Your task to perform on an android device: turn off notifications in google photos Image 0: 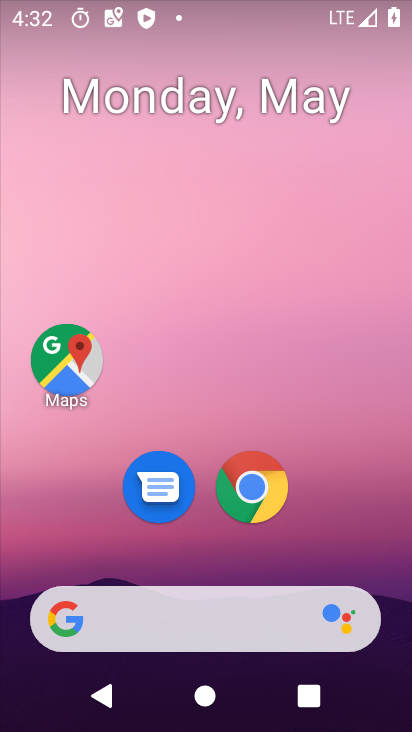
Step 0: drag from (377, 571) to (380, 17)
Your task to perform on an android device: turn off notifications in google photos Image 1: 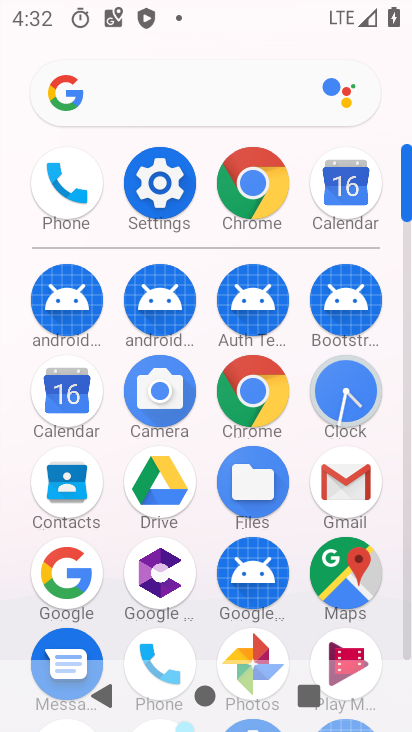
Step 1: click (250, 642)
Your task to perform on an android device: turn off notifications in google photos Image 2: 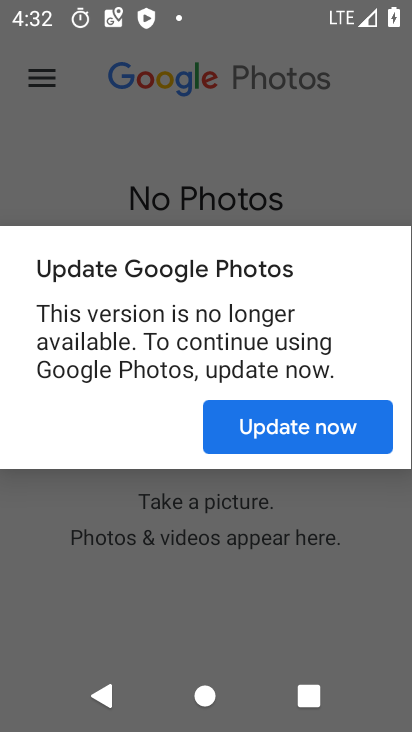
Step 2: click (299, 437)
Your task to perform on an android device: turn off notifications in google photos Image 3: 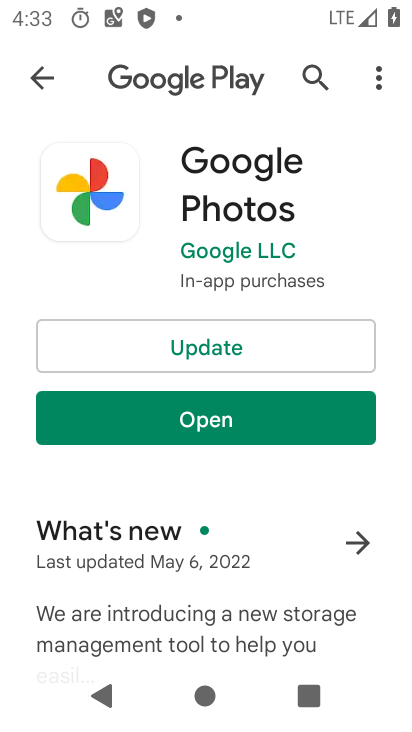
Step 3: click (198, 425)
Your task to perform on an android device: turn off notifications in google photos Image 4: 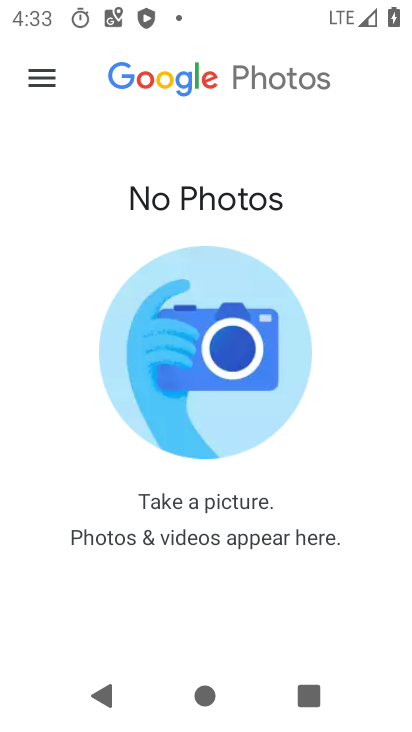
Step 4: click (40, 88)
Your task to perform on an android device: turn off notifications in google photos Image 5: 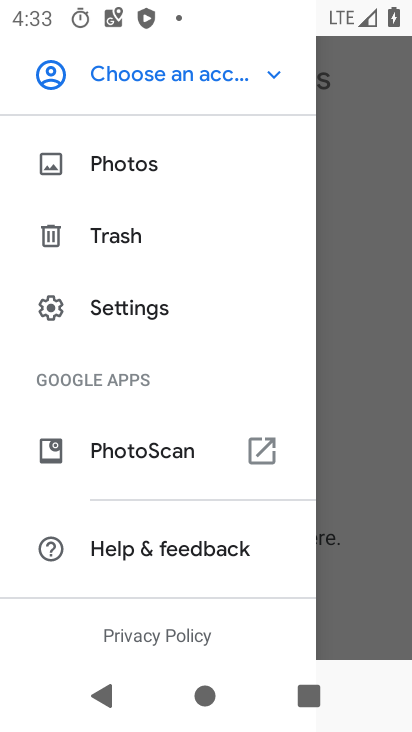
Step 5: click (119, 313)
Your task to perform on an android device: turn off notifications in google photos Image 6: 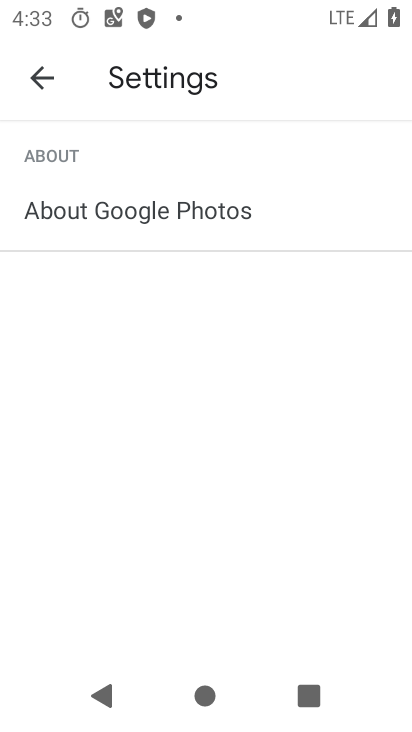
Step 6: click (37, 84)
Your task to perform on an android device: turn off notifications in google photos Image 7: 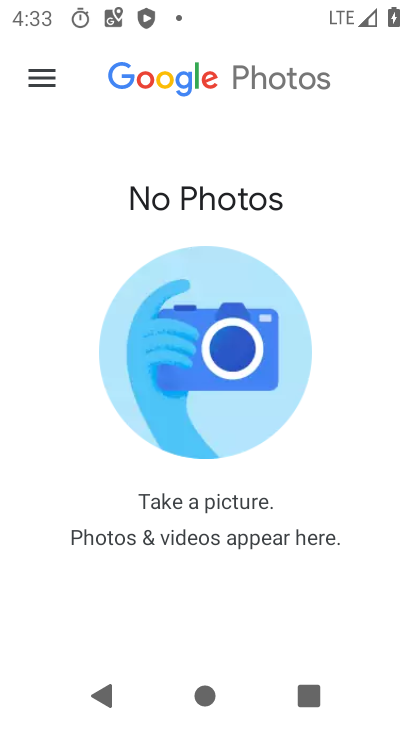
Step 7: click (37, 84)
Your task to perform on an android device: turn off notifications in google photos Image 8: 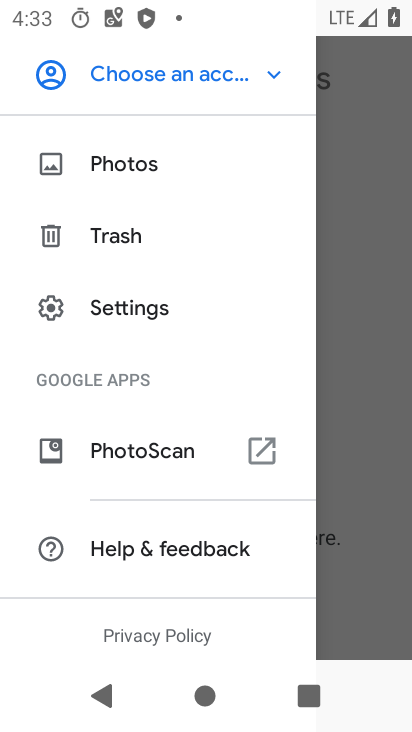
Step 8: click (99, 314)
Your task to perform on an android device: turn off notifications in google photos Image 9: 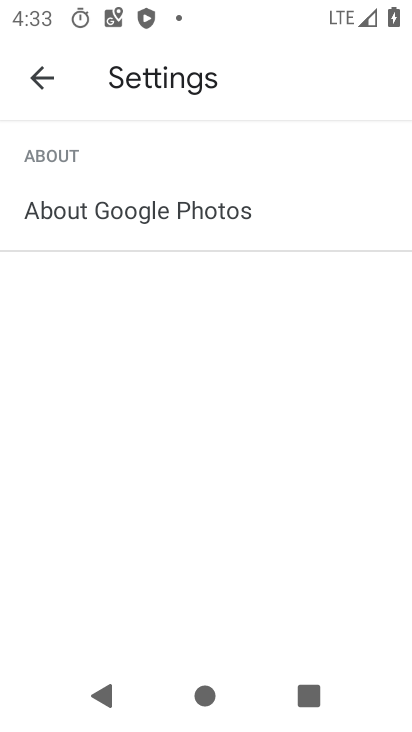
Step 9: click (38, 84)
Your task to perform on an android device: turn off notifications in google photos Image 10: 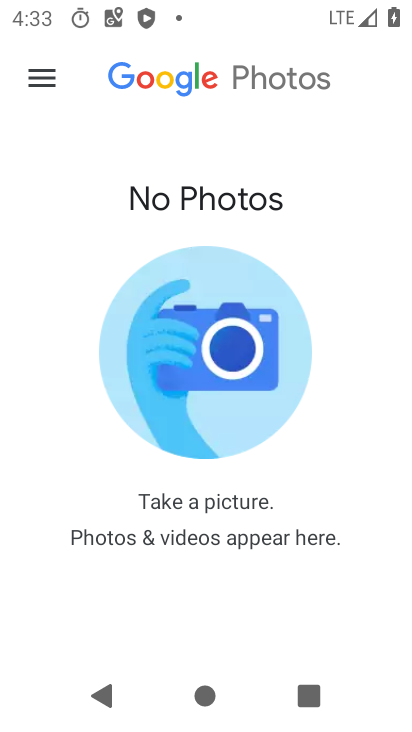
Step 10: drag from (117, 389) to (134, 167)
Your task to perform on an android device: turn off notifications in google photos Image 11: 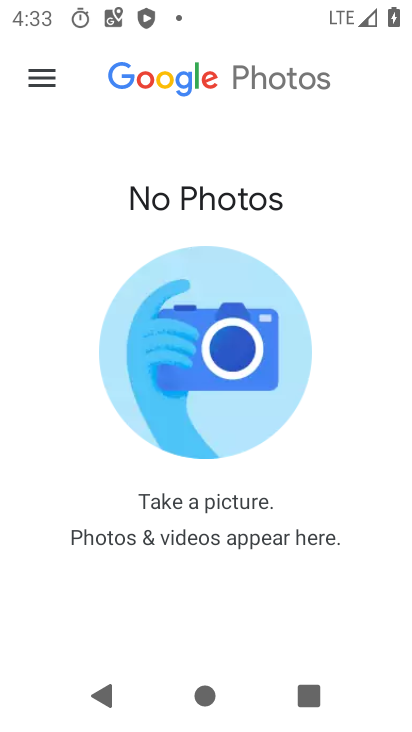
Step 11: click (45, 80)
Your task to perform on an android device: turn off notifications in google photos Image 12: 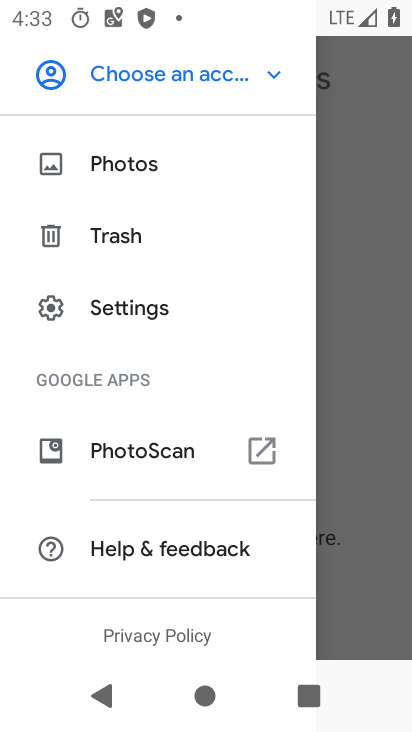
Step 12: drag from (145, 332) to (151, 503)
Your task to perform on an android device: turn off notifications in google photos Image 13: 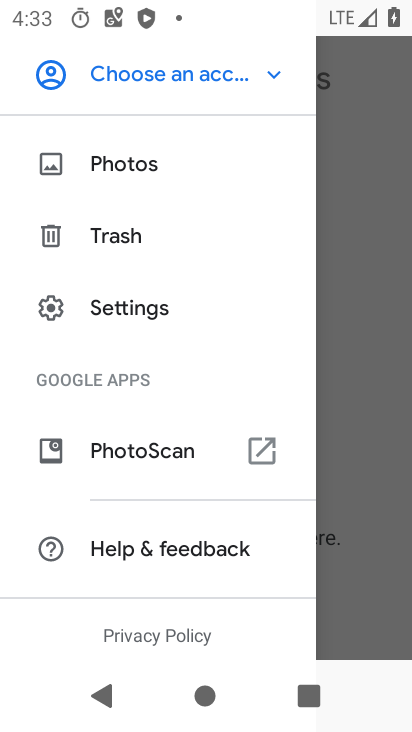
Step 13: click (113, 307)
Your task to perform on an android device: turn off notifications in google photos Image 14: 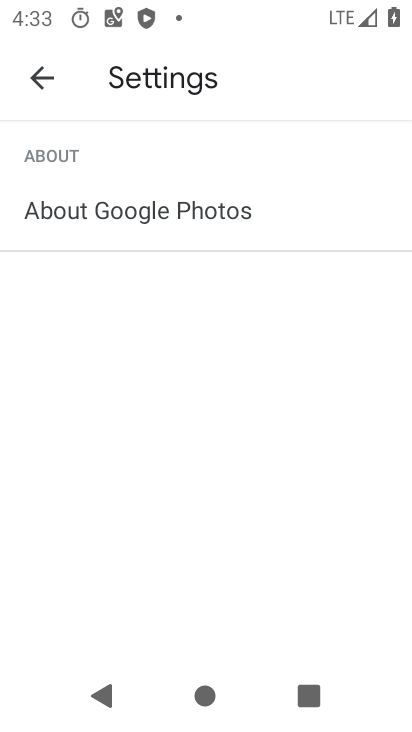
Step 14: click (145, 220)
Your task to perform on an android device: turn off notifications in google photos Image 15: 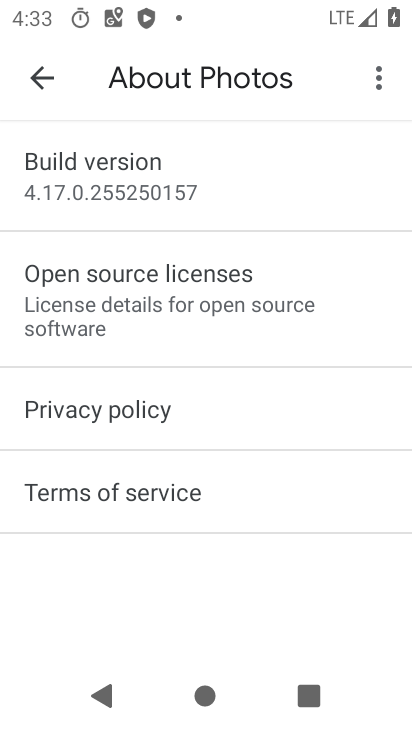
Step 15: drag from (164, 399) to (187, 444)
Your task to perform on an android device: turn off notifications in google photos Image 16: 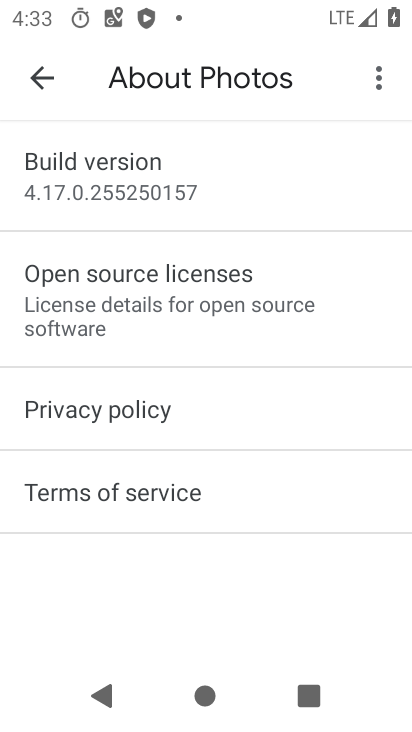
Step 16: click (379, 79)
Your task to perform on an android device: turn off notifications in google photos Image 17: 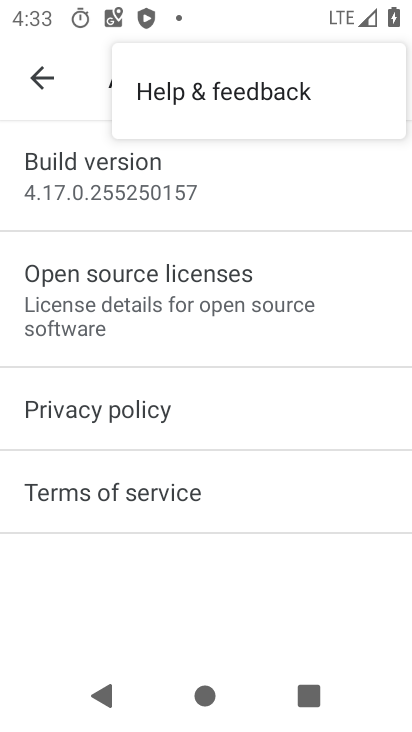
Step 17: click (34, 76)
Your task to perform on an android device: turn off notifications in google photos Image 18: 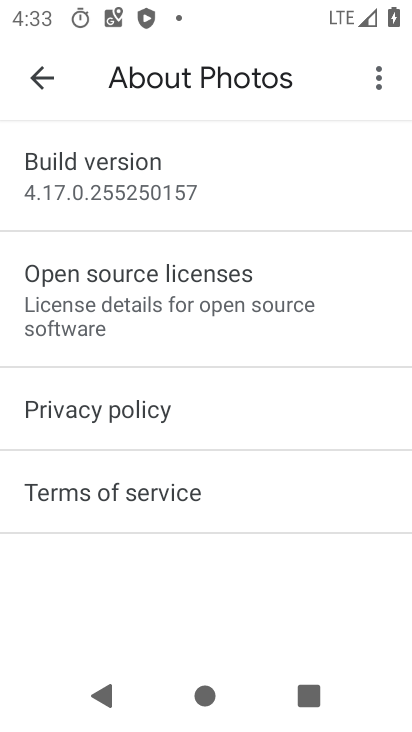
Step 18: click (34, 76)
Your task to perform on an android device: turn off notifications in google photos Image 19: 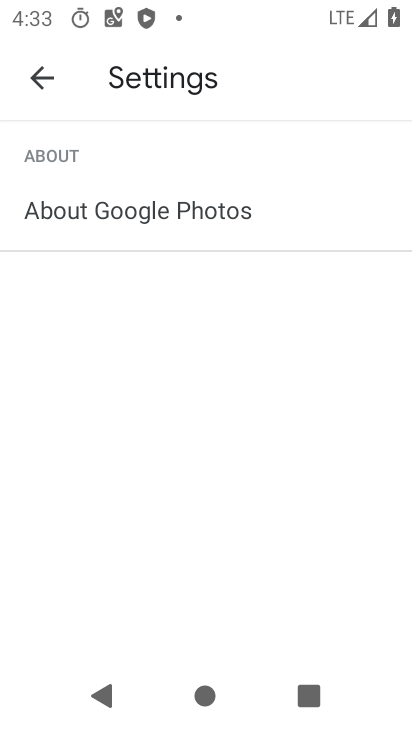
Step 19: task complete